Your task to perform on an android device: toggle pop-ups in chrome Image 0: 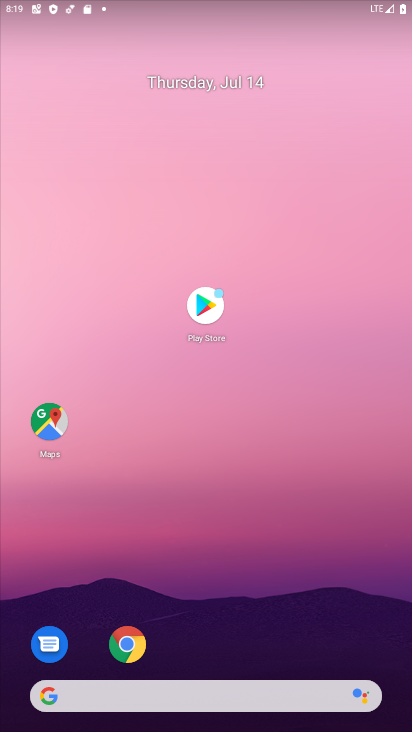
Step 0: drag from (169, 631) to (284, 184)
Your task to perform on an android device: toggle pop-ups in chrome Image 1: 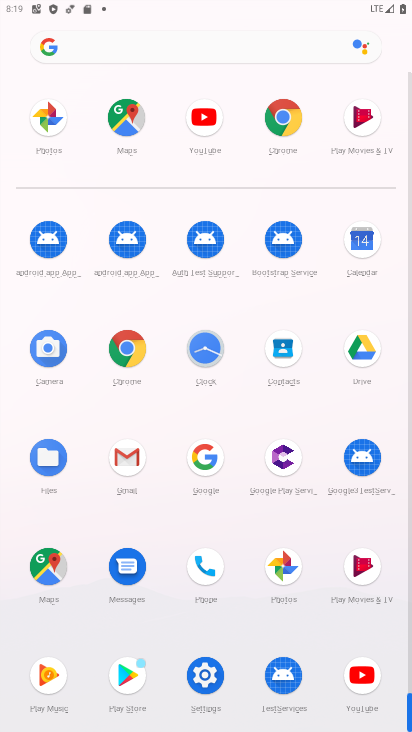
Step 1: click (128, 343)
Your task to perform on an android device: toggle pop-ups in chrome Image 2: 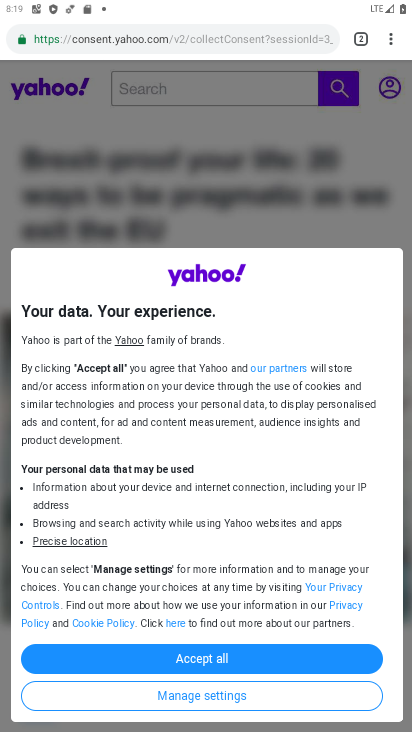
Step 2: drag from (245, 566) to (293, 198)
Your task to perform on an android device: toggle pop-ups in chrome Image 3: 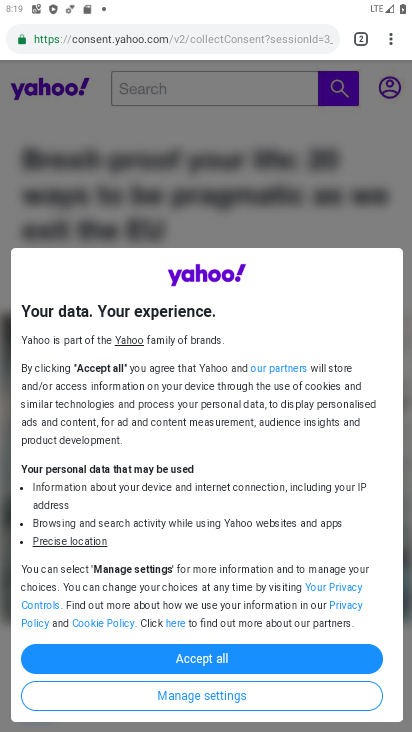
Step 3: click (394, 41)
Your task to perform on an android device: toggle pop-ups in chrome Image 4: 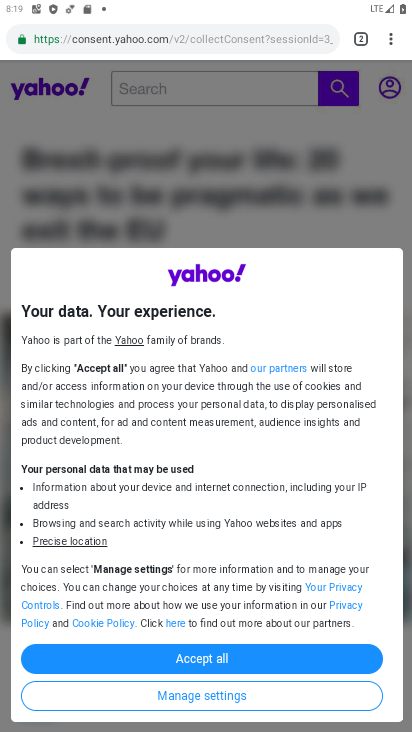
Step 4: drag from (294, 599) to (281, 362)
Your task to perform on an android device: toggle pop-ups in chrome Image 5: 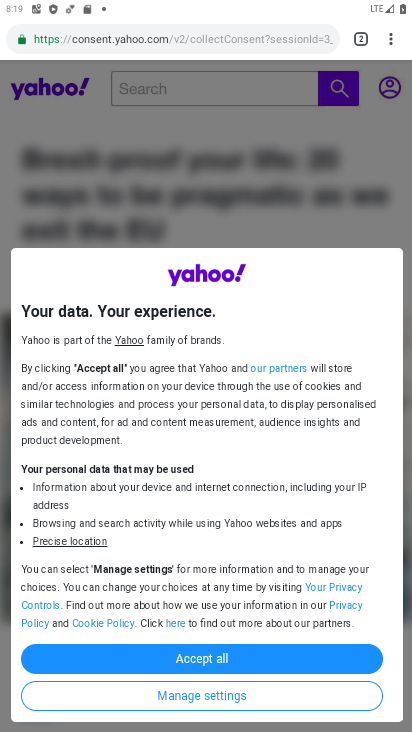
Step 5: drag from (394, 42) to (288, 468)
Your task to perform on an android device: toggle pop-ups in chrome Image 6: 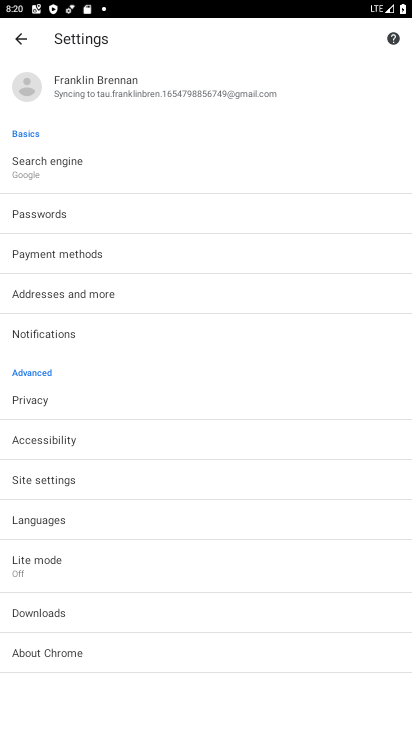
Step 6: drag from (207, 526) to (260, 168)
Your task to perform on an android device: toggle pop-ups in chrome Image 7: 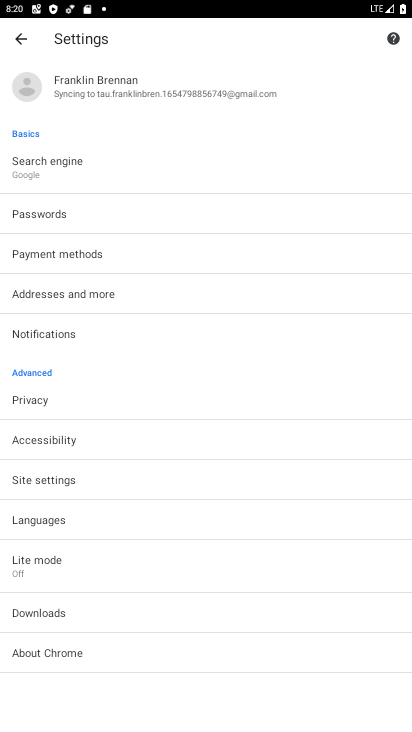
Step 7: click (88, 478)
Your task to perform on an android device: toggle pop-ups in chrome Image 8: 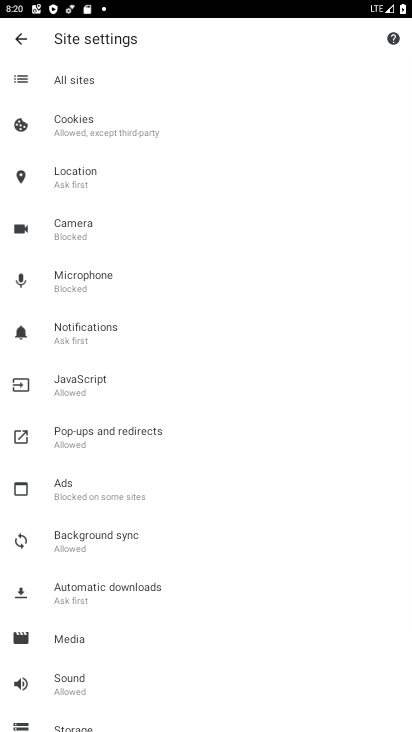
Step 8: drag from (193, 191) to (174, 630)
Your task to perform on an android device: toggle pop-ups in chrome Image 9: 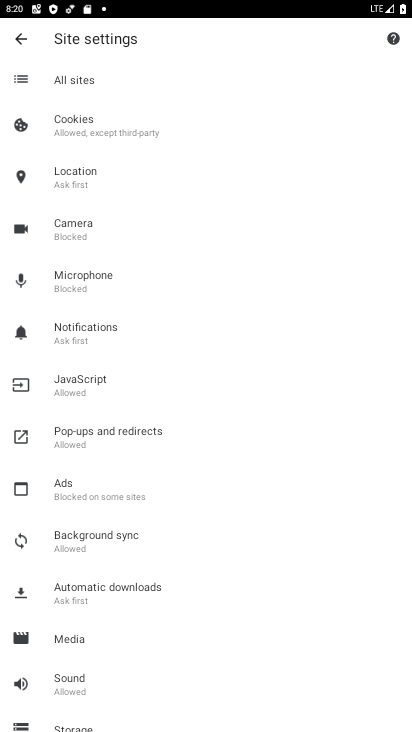
Step 9: drag from (158, 532) to (201, 323)
Your task to perform on an android device: toggle pop-ups in chrome Image 10: 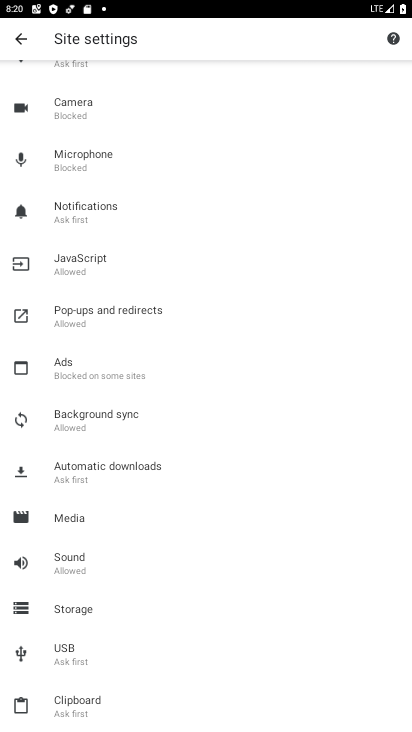
Step 10: click (112, 312)
Your task to perform on an android device: toggle pop-ups in chrome Image 11: 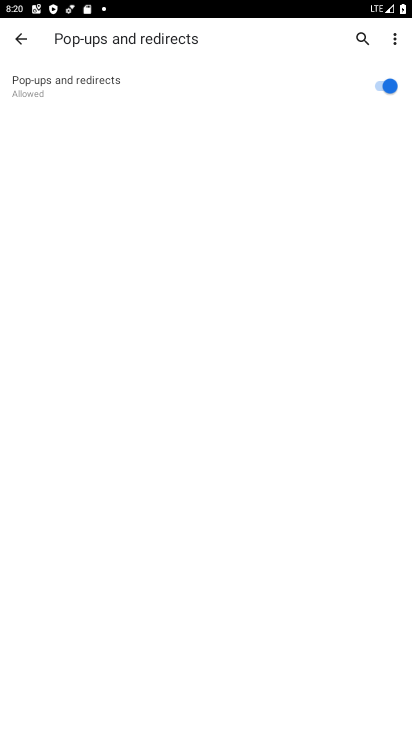
Step 11: task complete